Your task to perform on an android device: turn on sleep mode Image 0: 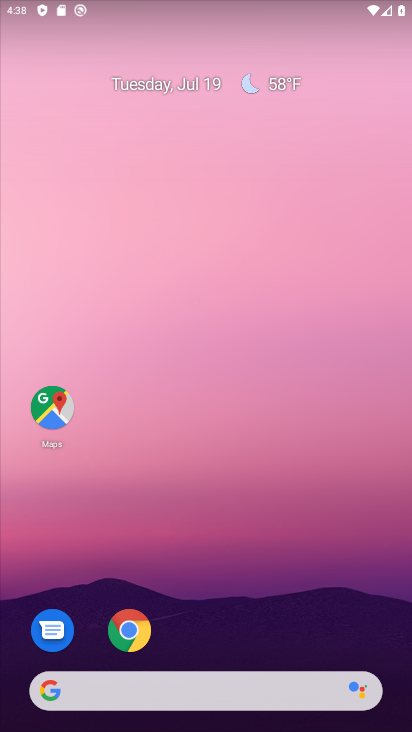
Step 0: drag from (167, 661) to (166, 196)
Your task to perform on an android device: turn on sleep mode Image 1: 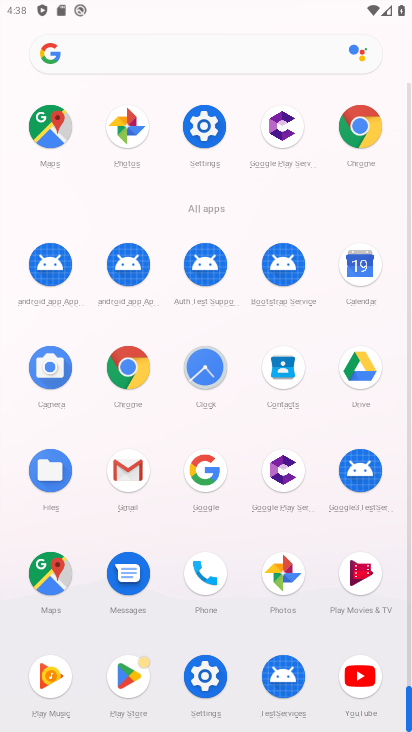
Step 1: click (190, 667)
Your task to perform on an android device: turn on sleep mode Image 2: 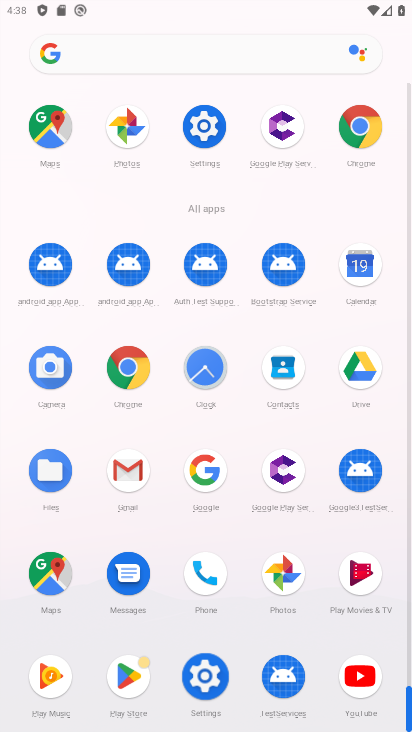
Step 2: click (204, 676)
Your task to perform on an android device: turn on sleep mode Image 3: 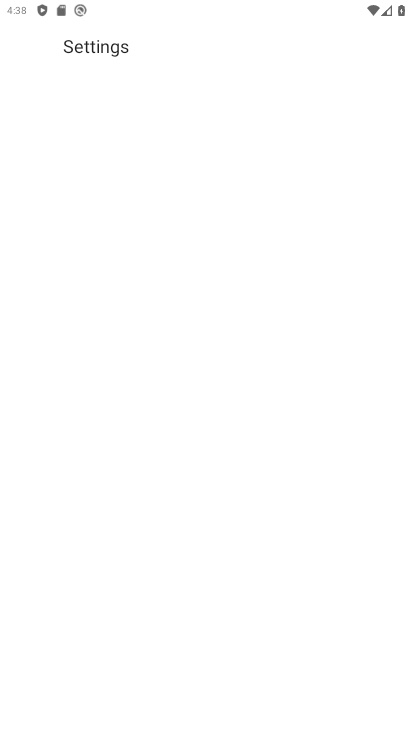
Step 3: click (201, 675)
Your task to perform on an android device: turn on sleep mode Image 4: 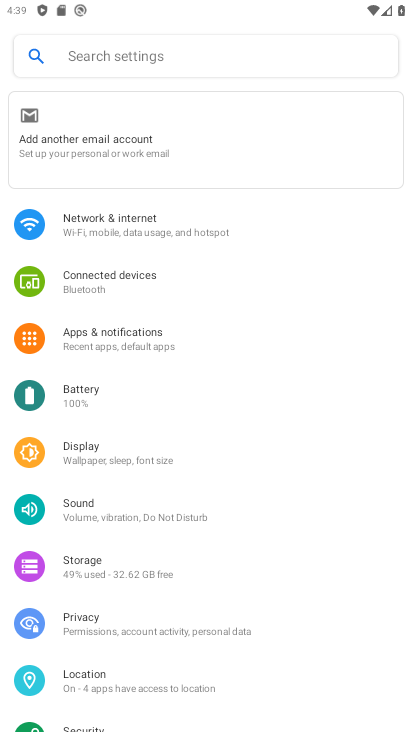
Step 4: drag from (113, 650) to (60, 496)
Your task to perform on an android device: turn on sleep mode Image 5: 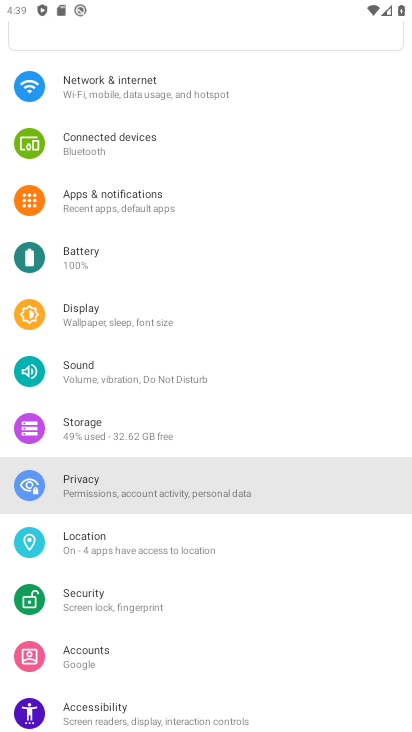
Step 5: drag from (112, 624) to (132, 436)
Your task to perform on an android device: turn on sleep mode Image 6: 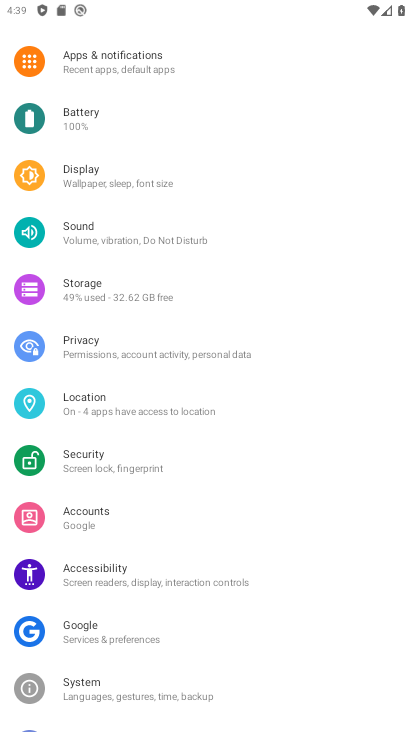
Step 6: drag from (87, 194) to (112, 482)
Your task to perform on an android device: turn on sleep mode Image 7: 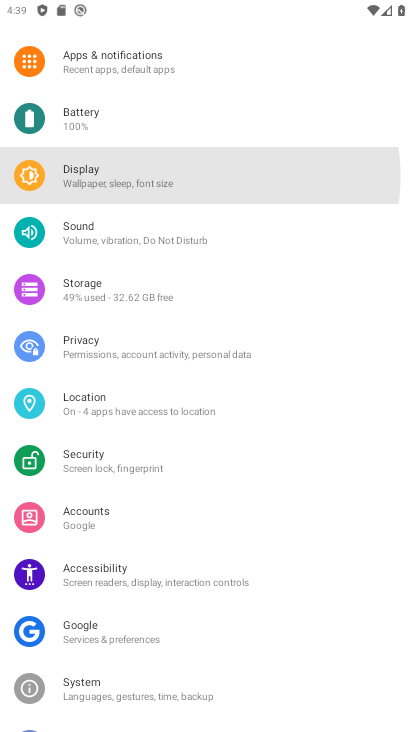
Step 7: drag from (100, 308) to (120, 543)
Your task to perform on an android device: turn on sleep mode Image 8: 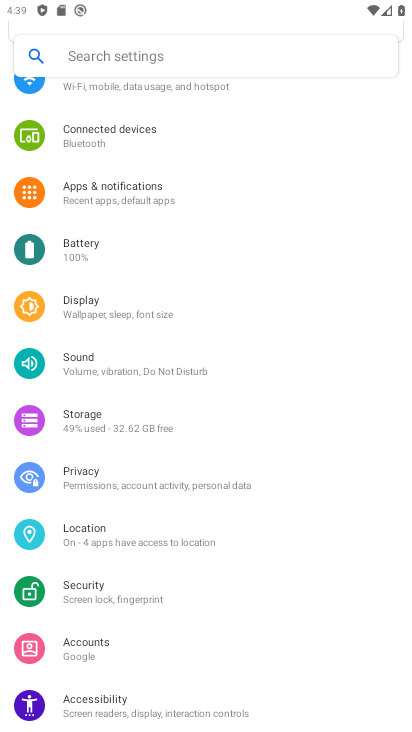
Step 8: drag from (133, 364) to (162, 558)
Your task to perform on an android device: turn on sleep mode Image 9: 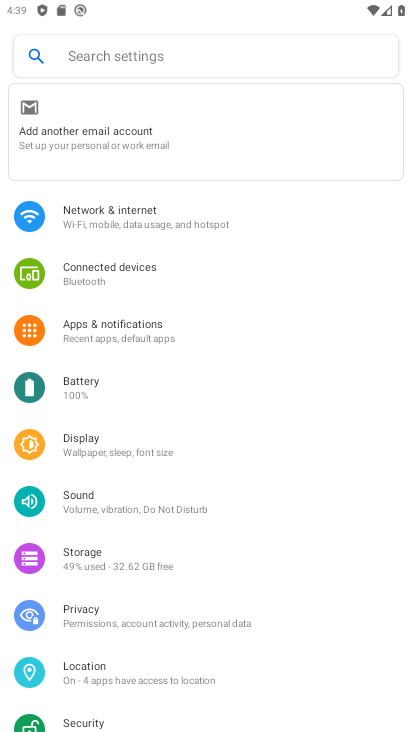
Step 9: click (86, 452)
Your task to perform on an android device: turn on sleep mode Image 10: 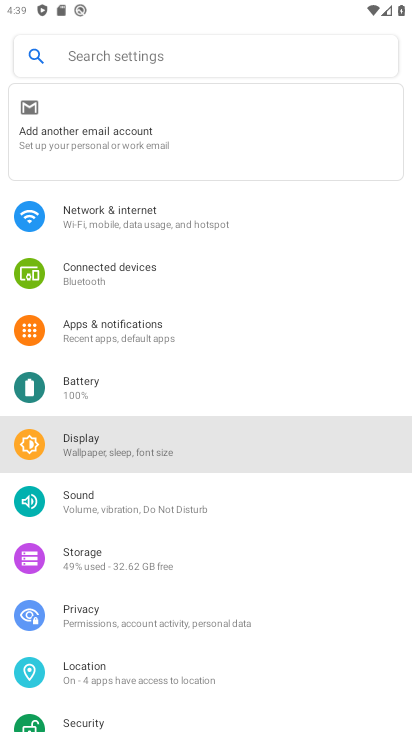
Step 10: click (86, 452)
Your task to perform on an android device: turn on sleep mode Image 11: 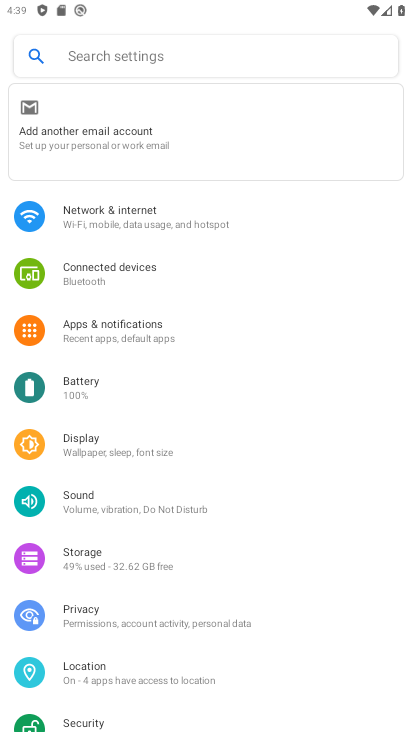
Step 11: click (82, 453)
Your task to perform on an android device: turn on sleep mode Image 12: 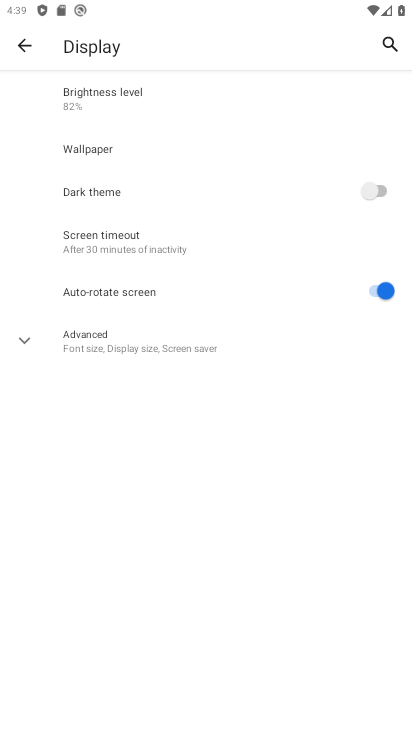
Step 12: click (98, 252)
Your task to perform on an android device: turn on sleep mode Image 13: 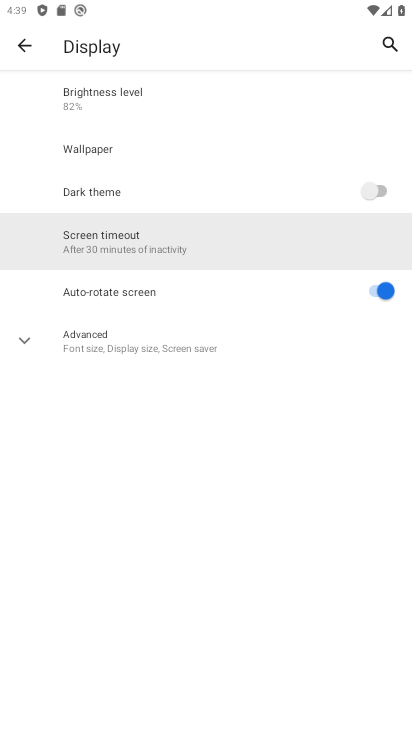
Step 13: click (115, 249)
Your task to perform on an android device: turn on sleep mode Image 14: 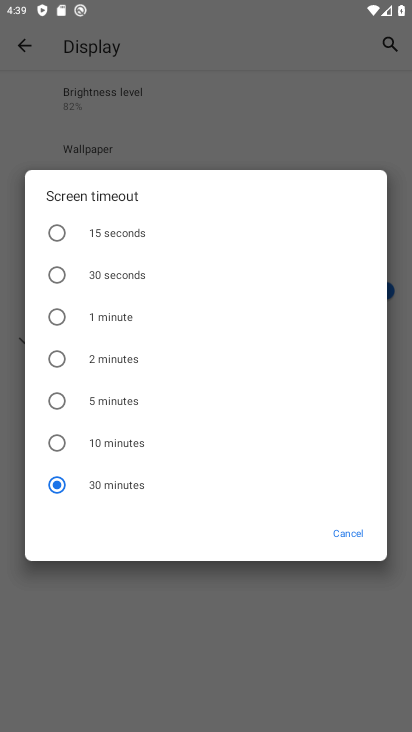
Step 14: task complete